Your task to perform on an android device: change the clock display to analog Image 0: 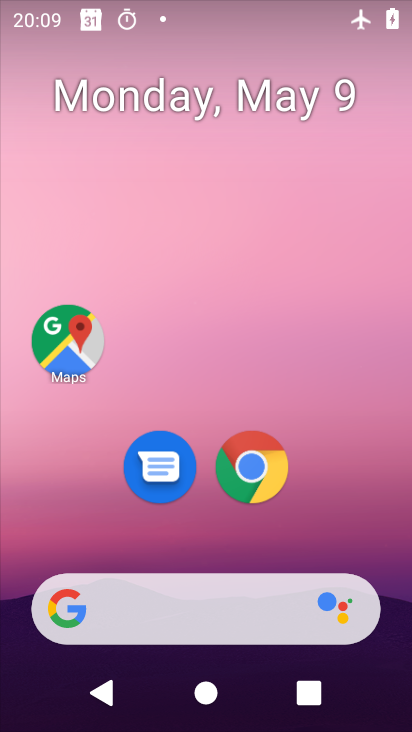
Step 0: drag from (350, 490) to (179, 40)
Your task to perform on an android device: change the clock display to analog Image 1: 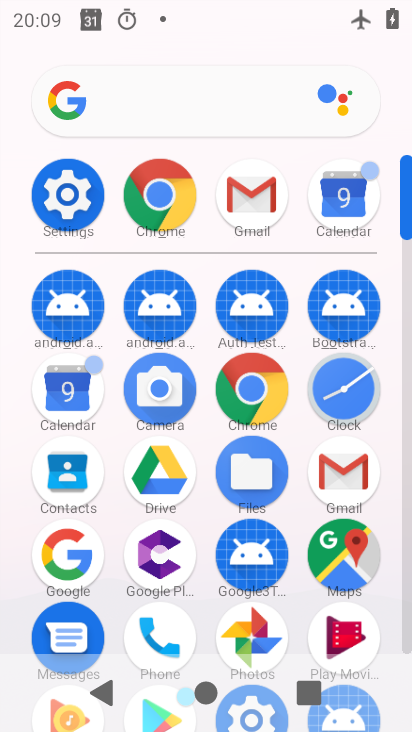
Step 1: click (353, 392)
Your task to perform on an android device: change the clock display to analog Image 2: 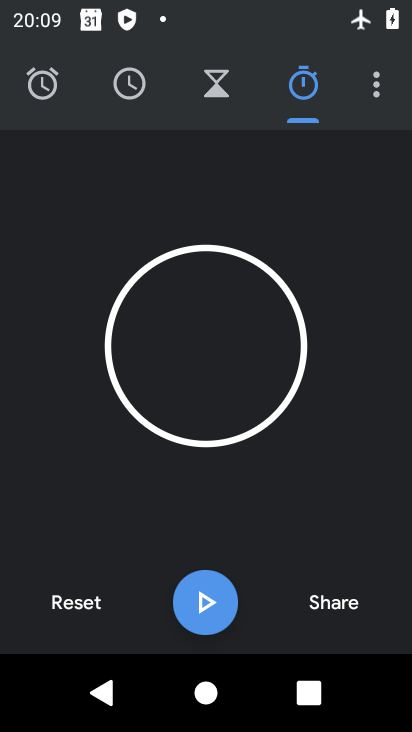
Step 2: click (377, 96)
Your task to perform on an android device: change the clock display to analog Image 3: 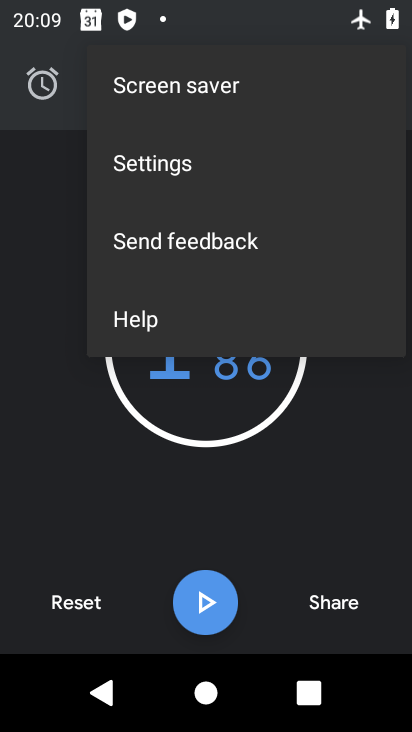
Step 3: click (179, 153)
Your task to perform on an android device: change the clock display to analog Image 4: 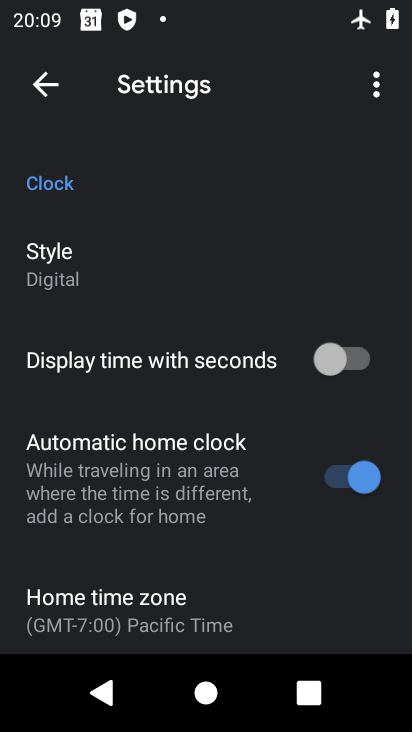
Step 4: click (67, 264)
Your task to perform on an android device: change the clock display to analog Image 5: 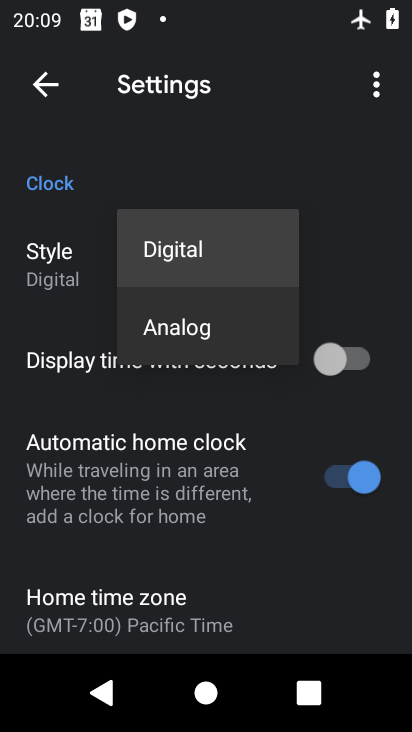
Step 5: click (172, 332)
Your task to perform on an android device: change the clock display to analog Image 6: 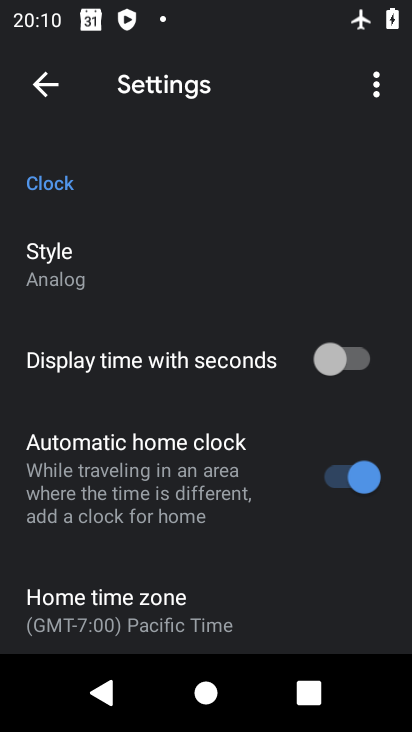
Step 6: task complete